Your task to perform on an android device: turn on wifi Image 0: 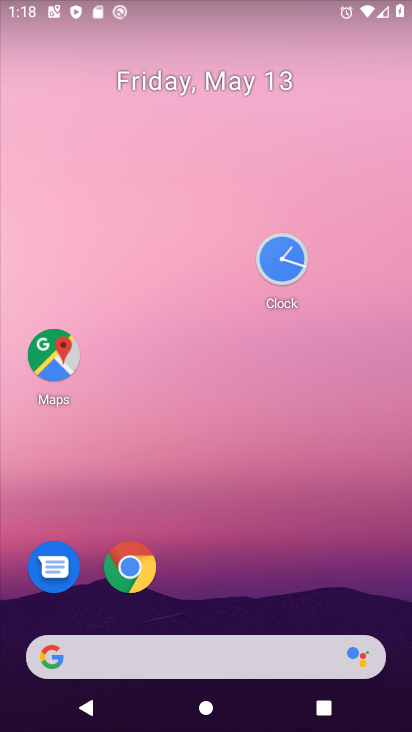
Step 0: drag from (318, 592) to (300, 36)
Your task to perform on an android device: turn on wifi Image 1: 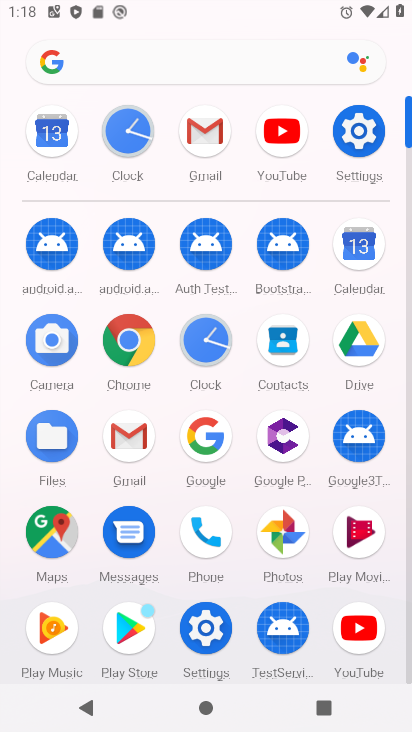
Step 1: click (369, 134)
Your task to perform on an android device: turn on wifi Image 2: 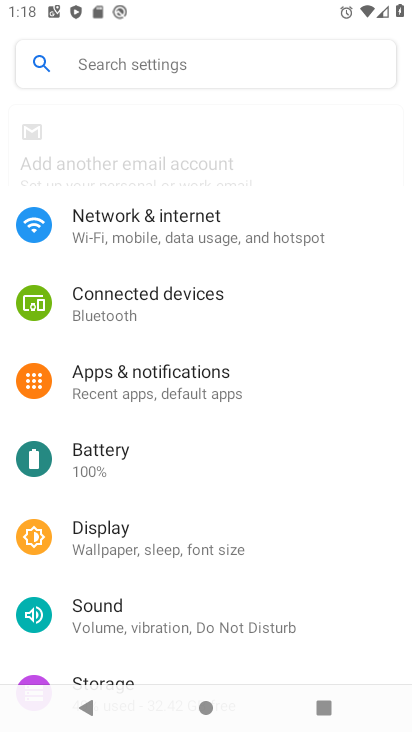
Step 2: click (207, 167)
Your task to perform on an android device: turn on wifi Image 3: 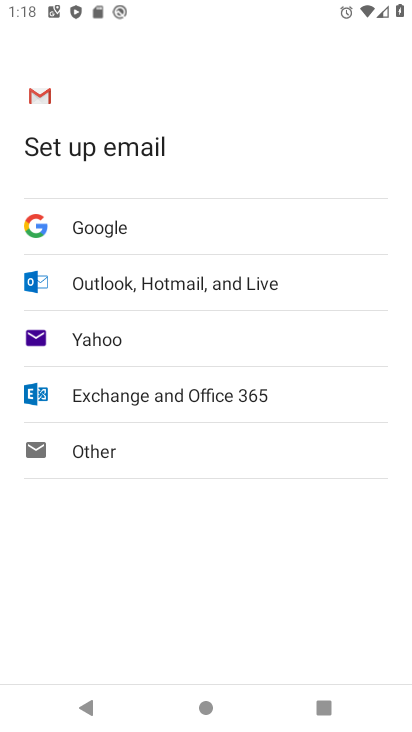
Step 3: click (99, 704)
Your task to perform on an android device: turn on wifi Image 4: 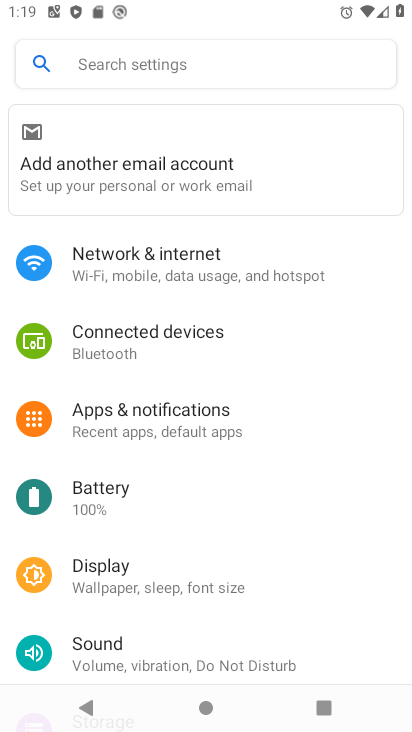
Step 4: click (185, 280)
Your task to perform on an android device: turn on wifi Image 5: 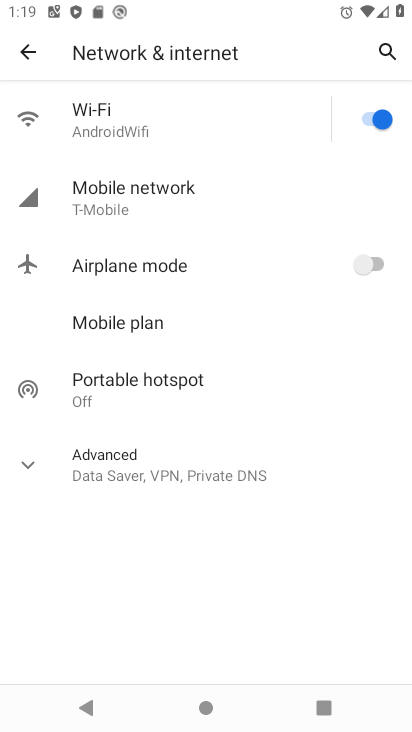
Step 5: click (162, 130)
Your task to perform on an android device: turn on wifi Image 6: 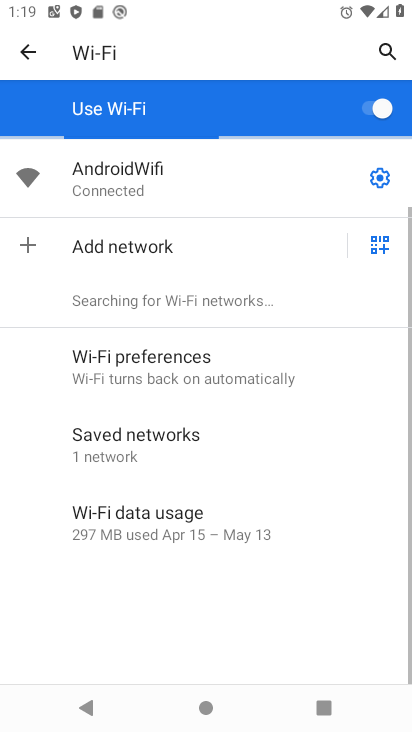
Step 6: task complete